Your task to perform on an android device: Open calendar and show me the third week of next month Image 0: 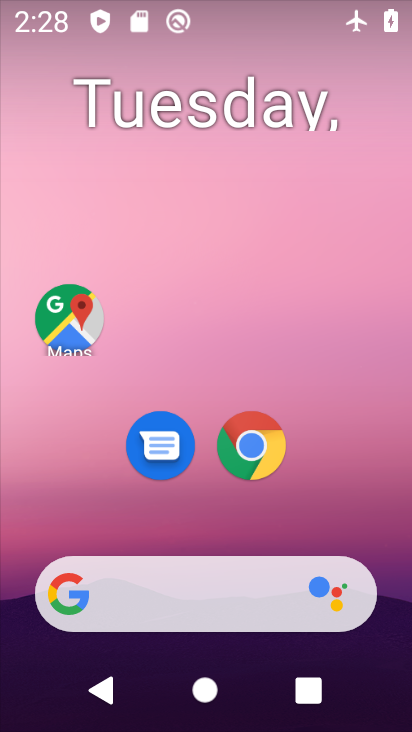
Step 0: drag from (335, 543) to (243, 160)
Your task to perform on an android device: Open calendar and show me the third week of next month Image 1: 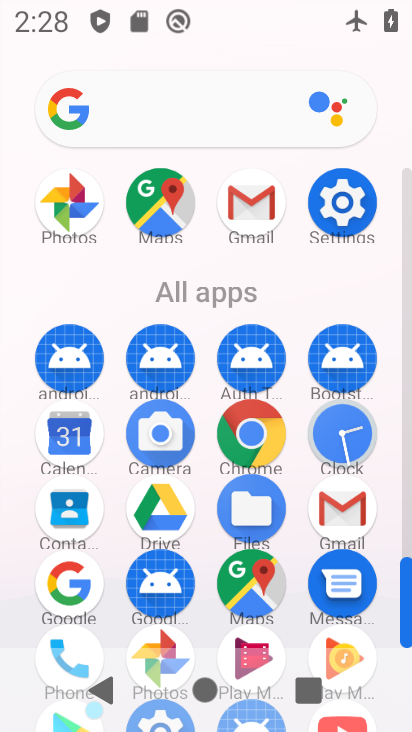
Step 1: click (65, 447)
Your task to perform on an android device: Open calendar and show me the third week of next month Image 2: 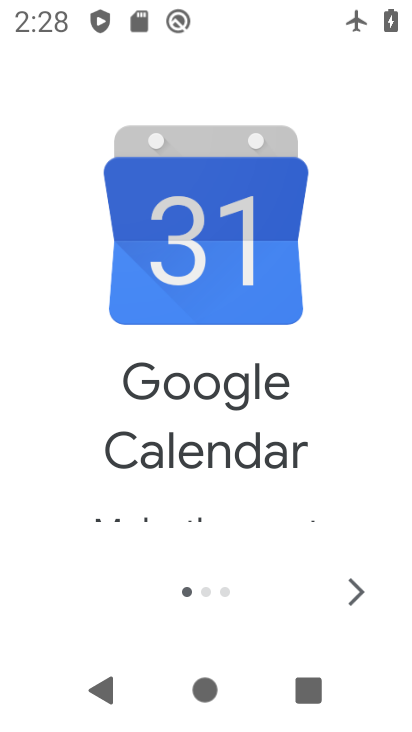
Step 2: click (339, 593)
Your task to perform on an android device: Open calendar and show me the third week of next month Image 3: 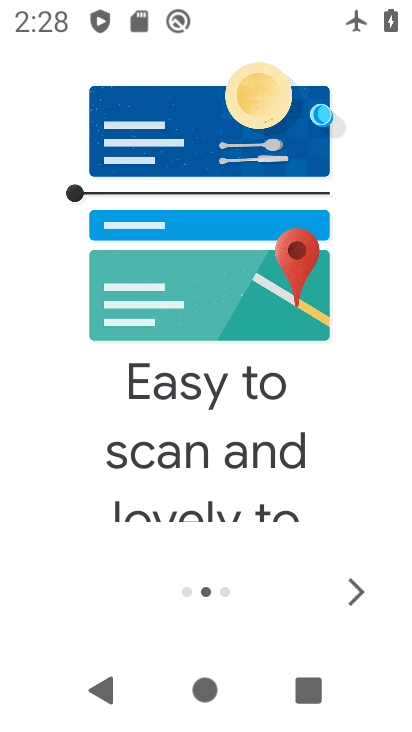
Step 3: click (339, 593)
Your task to perform on an android device: Open calendar and show me the third week of next month Image 4: 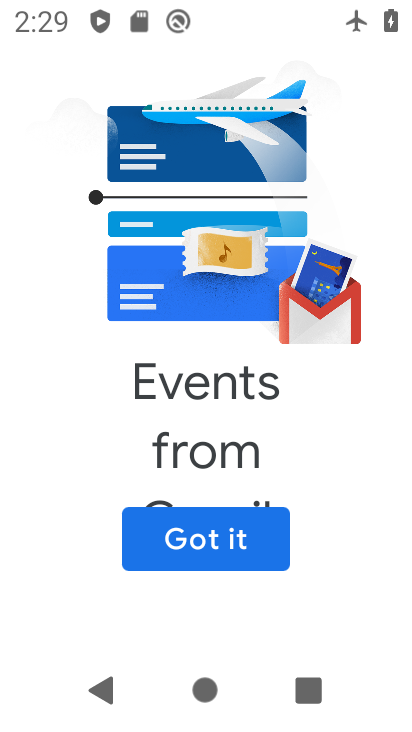
Step 4: click (234, 549)
Your task to perform on an android device: Open calendar and show me the third week of next month Image 5: 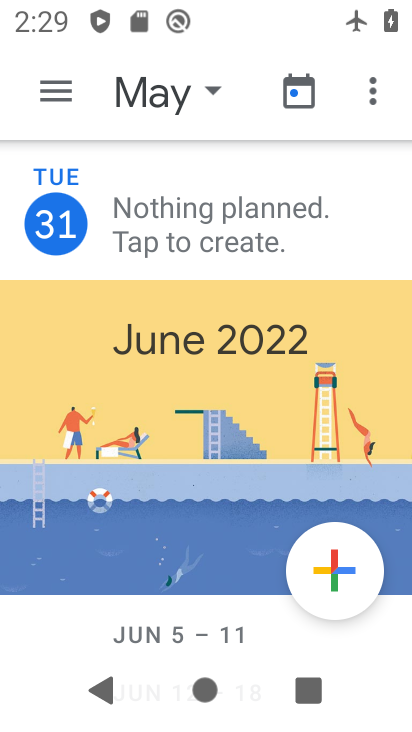
Step 5: click (169, 90)
Your task to perform on an android device: Open calendar and show me the third week of next month Image 6: 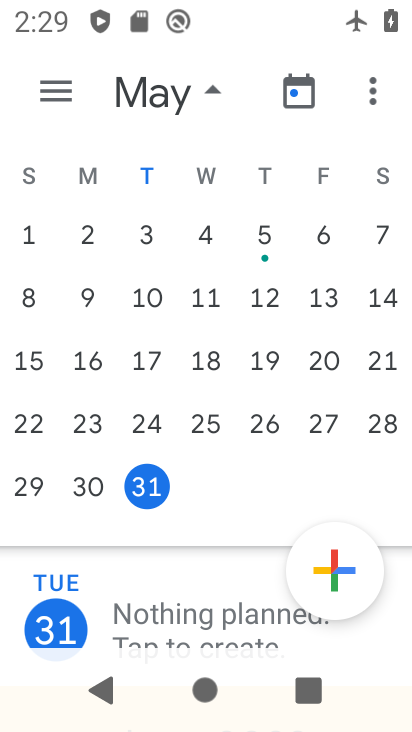
Step 6: drag from (371, 446) to (9, 430)
Your task to perform on an android device: Open calendar and show me the third week of next month Image 7: 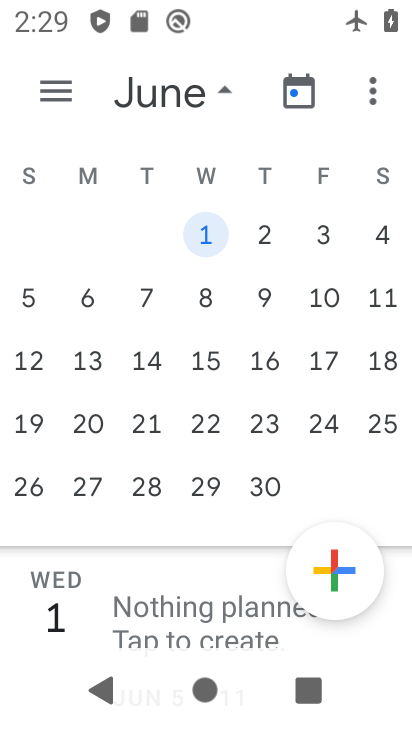
Step 7: click (27, 362)
Your task to perform on an android device: Open calendar and show me the third week of next month Image 8: 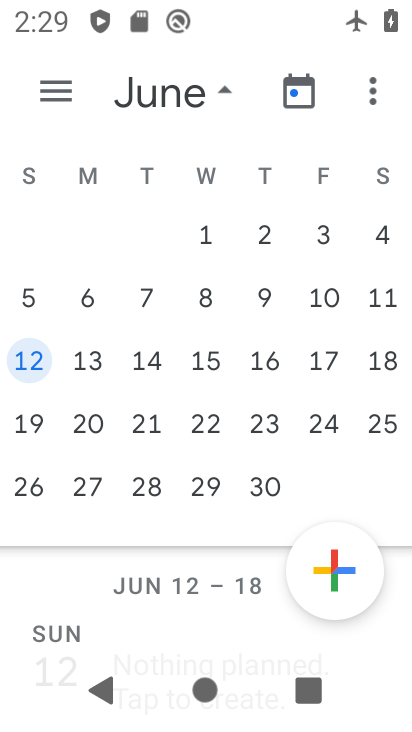
Step 8: click (58, 89)
Your task to perform on an android device: Open calendar and show me the third week of next month Image 9: 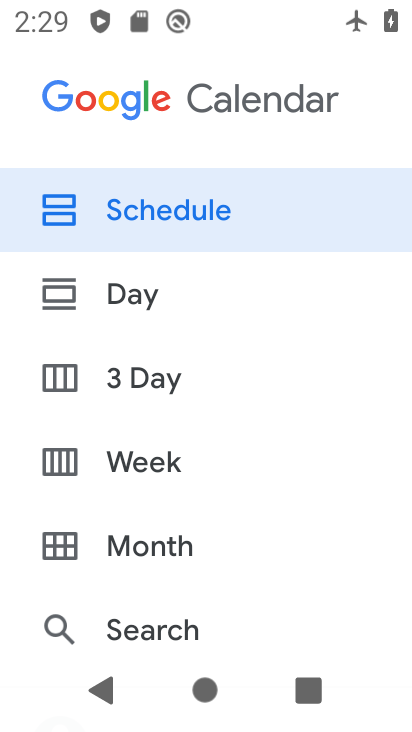
Step 9: click (83, 448)
Your task to perform on an android device: Open calendar and show me the third week of next month Image 10: 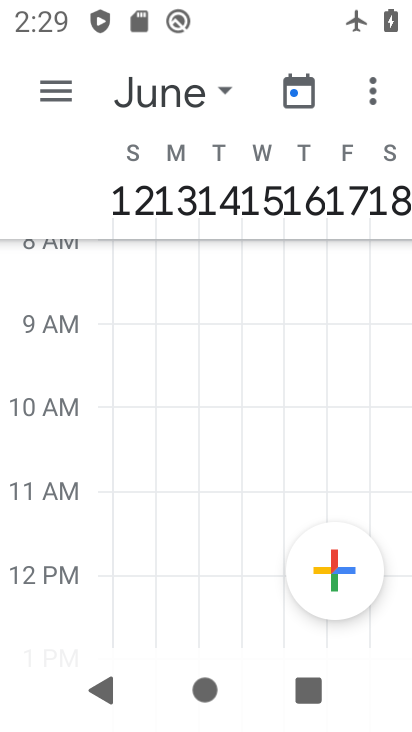
Step 10: task complete